Your task to perform on an android device: turn off data saver in the chrome app Image 0: 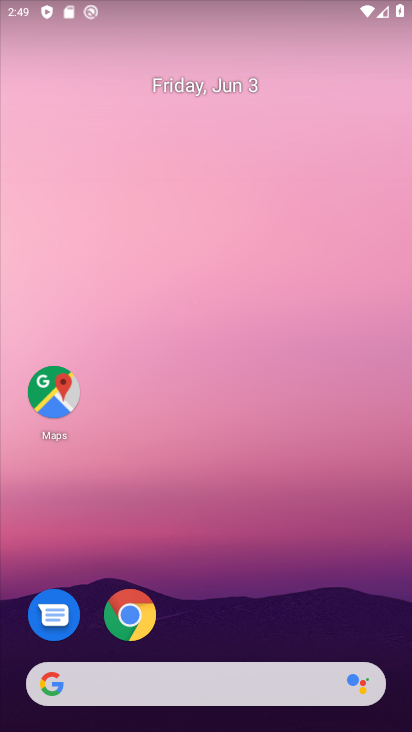
Step 0: click (125, 613)
Your task to perform on an android device: turn off data saver in the chrome app Image 1: 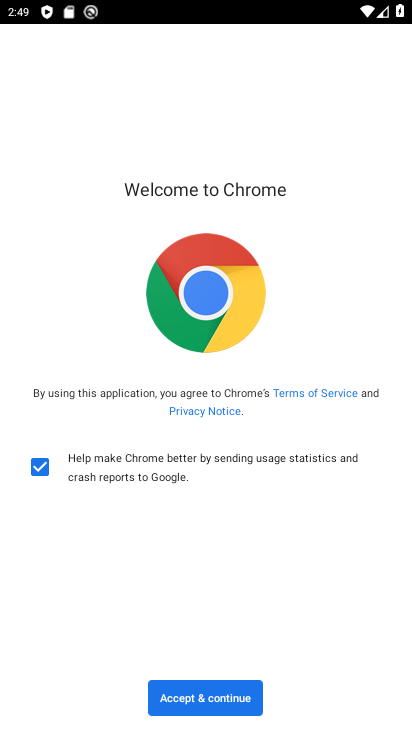
Step 1: click (175, 704)
Your task to perform on an android device: turn off data saver in the chrome app Image 2: 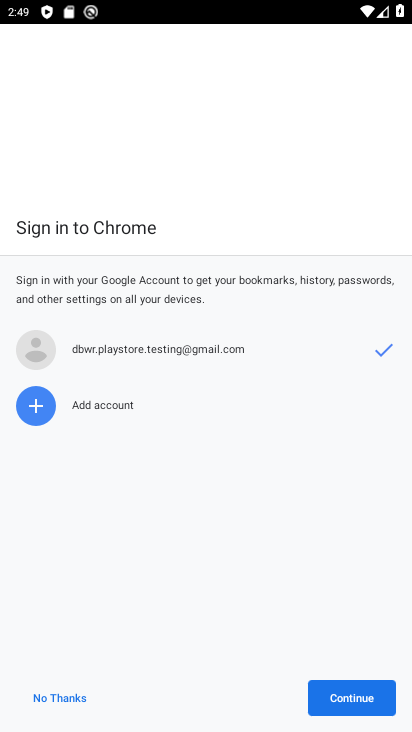
Step 2: click (361, 711)
Your task to perform on an android device: turn off data saver in the chrome app Image 3: 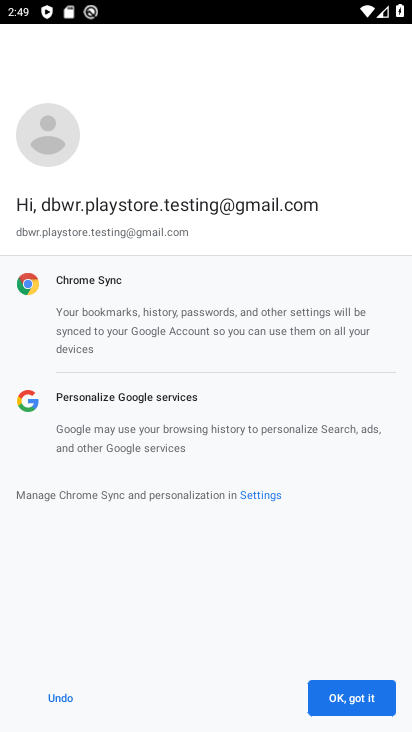
Step 3: click (358, 691)
Your task to perform on an android device: turn off data saver in the chrome app Image 4: 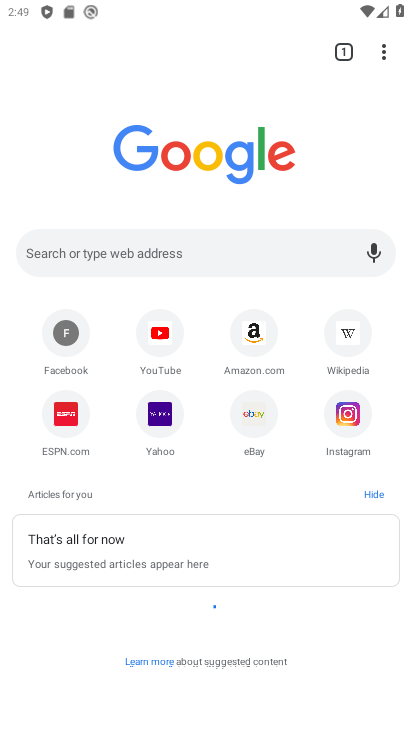
Step 4: click (381, 52)
Your task to perform on an android device: turn off data saver in the chrome app Image 5: 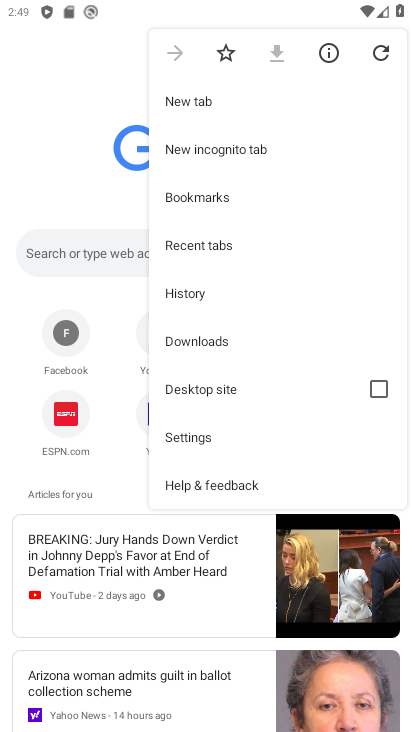
Step 5: click (182, 434)
Your task to perform on an android device: turn off data saver in the chrome app Image 6: 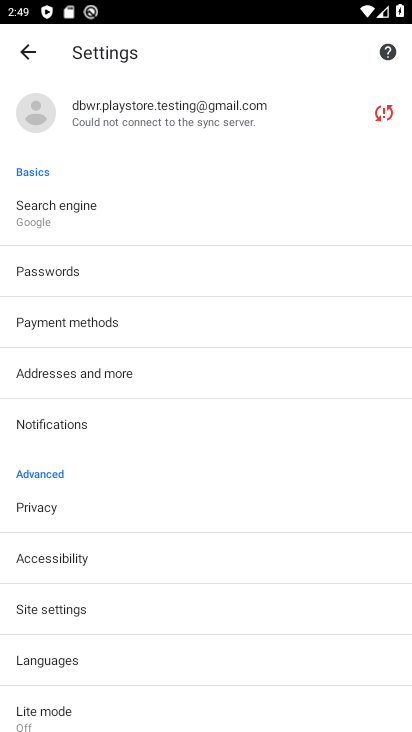
Step 6: click (40, 708)
Your task to perform on an android device: turn off data saver in the chrome app Image 7: 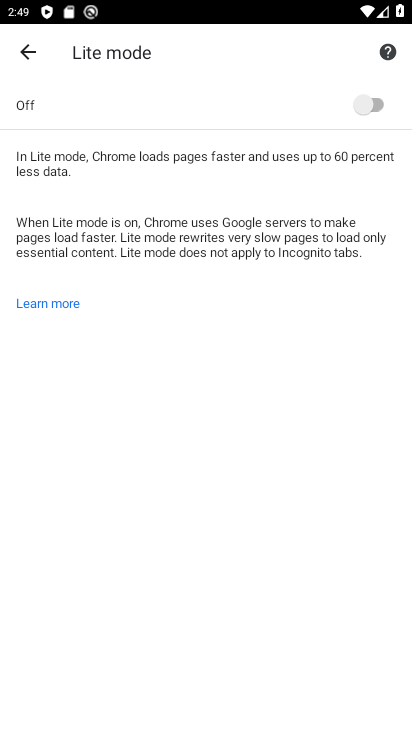
Step 7: task complete